Your task to perform on an android device: What's the weather? Image 0: 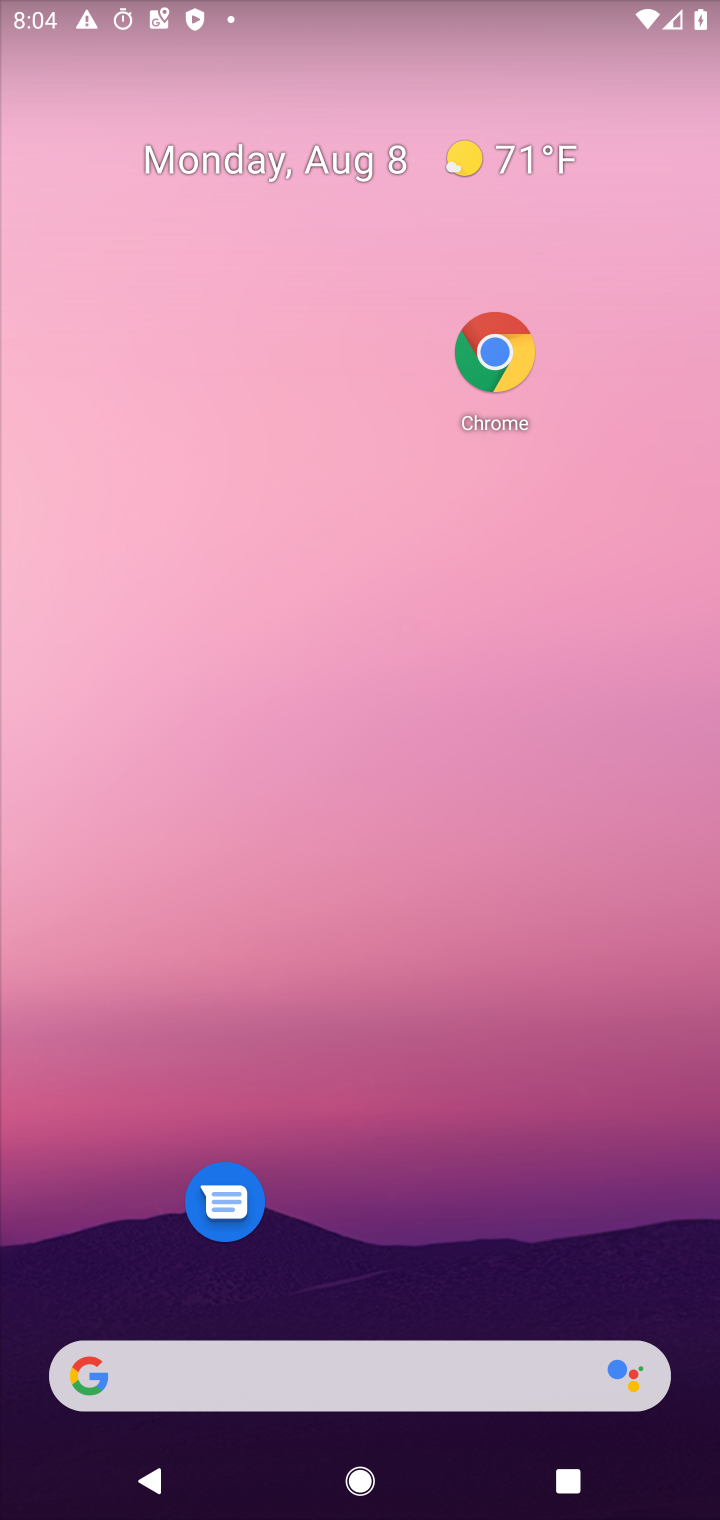
Step 0: drag from (288, 1110) to (277, 317)
Your task to perform on an android device: What's the weather? Image 1: 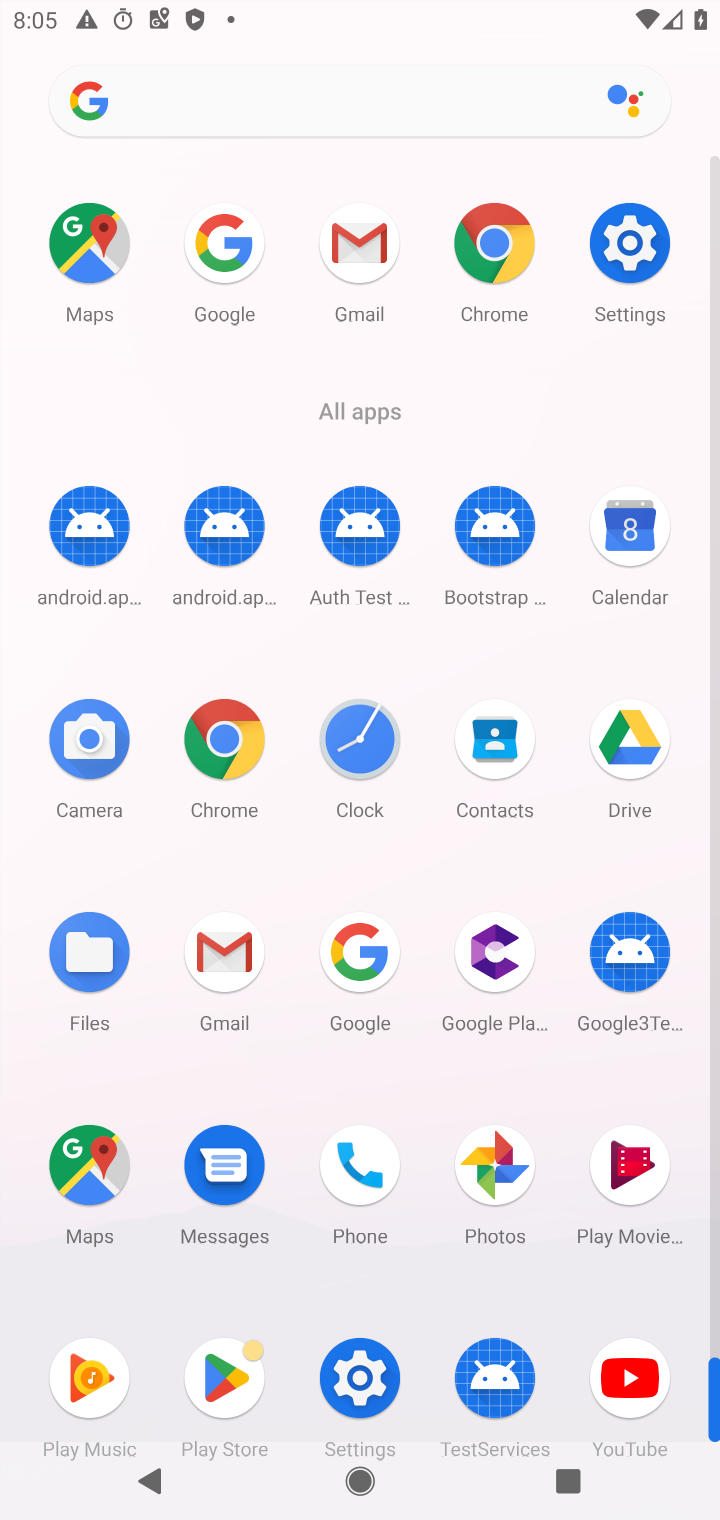
Step 1: click (102, 1193)
Your task to perform on an android device: What's the weather? Image 2: 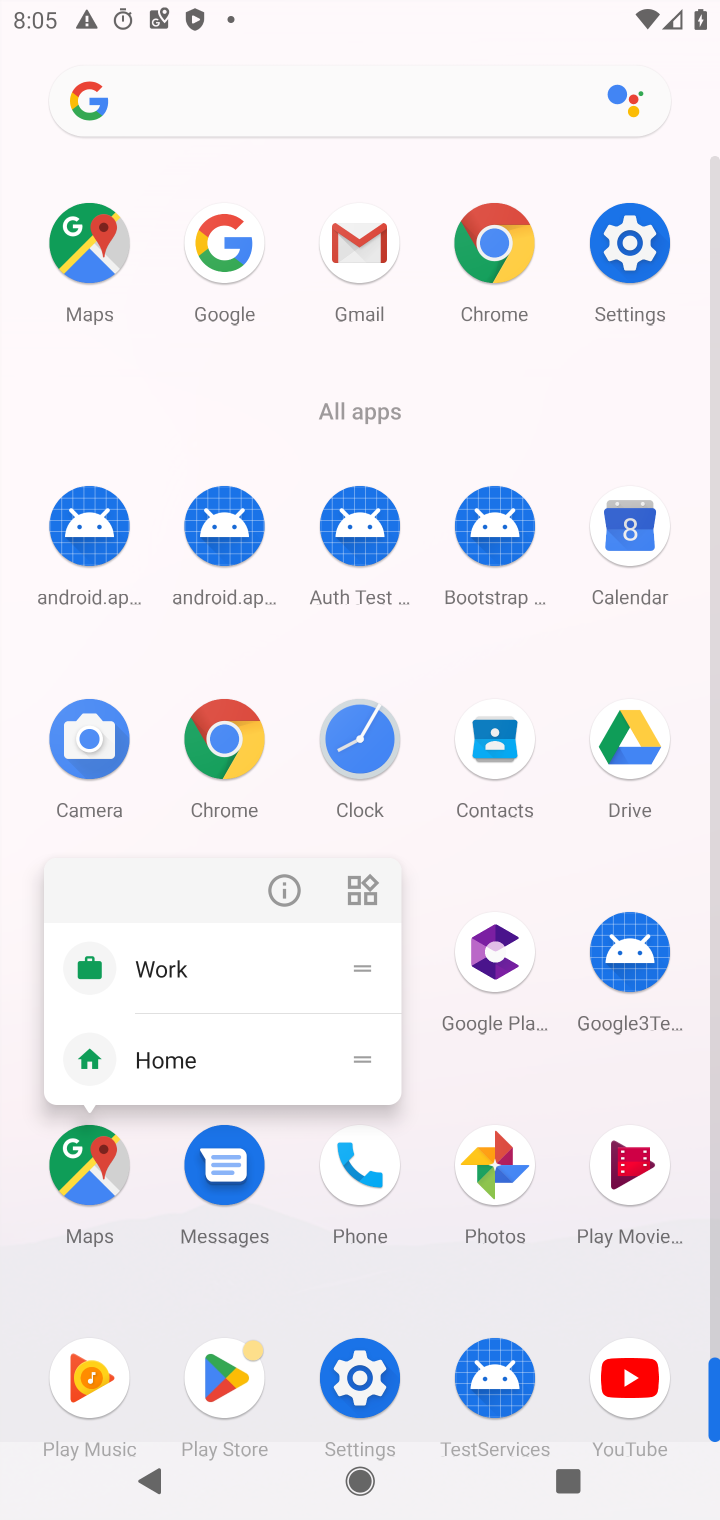
Step 2: drag from (496, 1136) to (419, 176)
Your task to perform on an android device: What's the weather? Image 3: 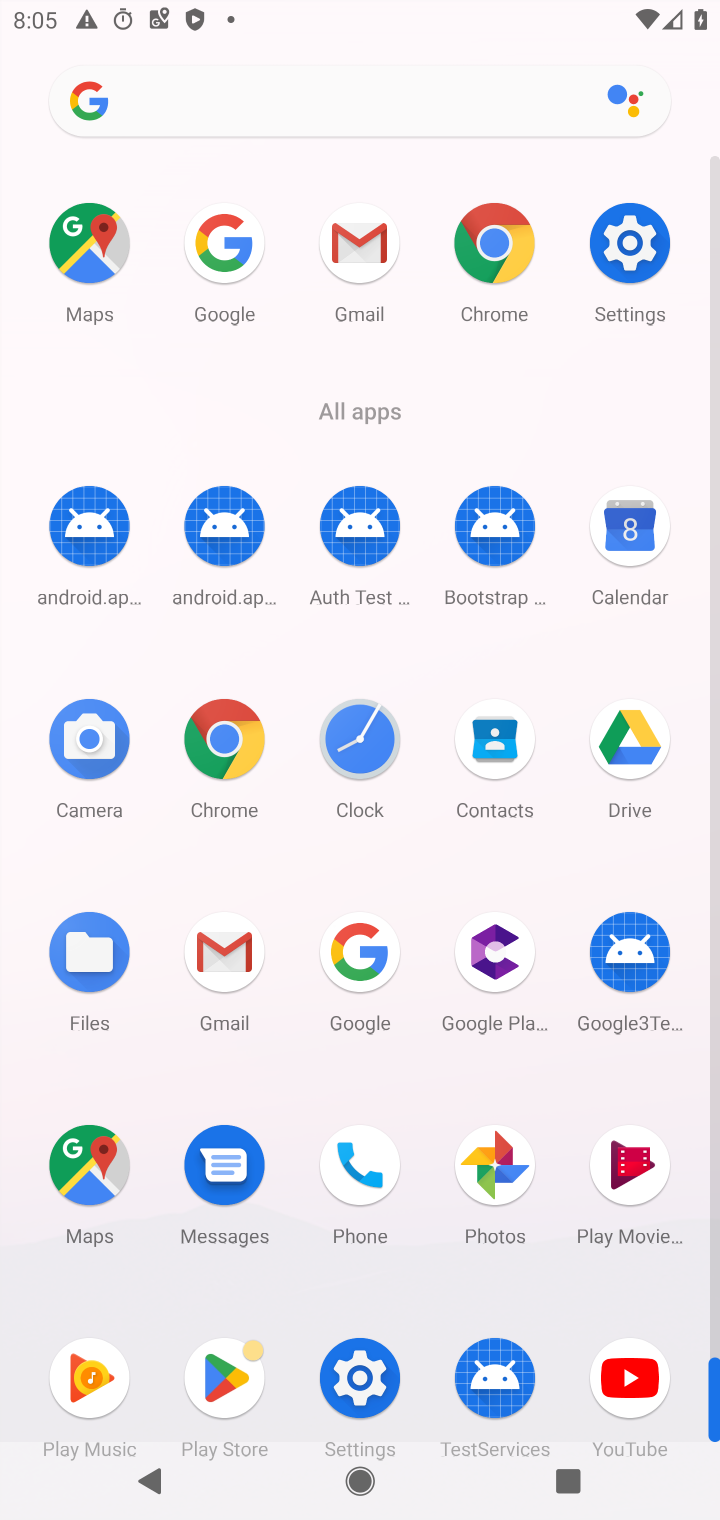
Step 3: click (357, 1003)
Your task to perform on an android device: What's the weather? Image 4: 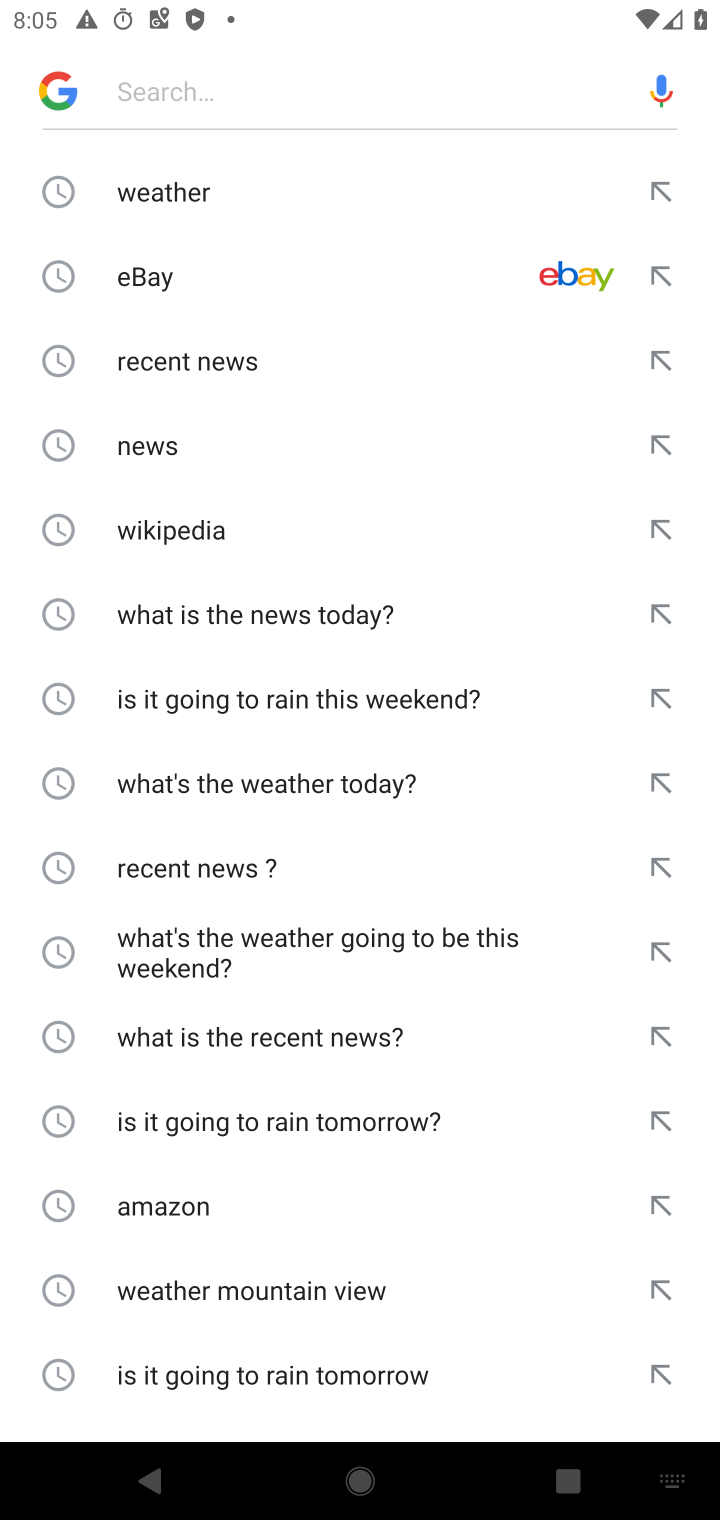
Step 4: click (140, 192)
Your task to perform on an android device: What's the weather? Image 5: 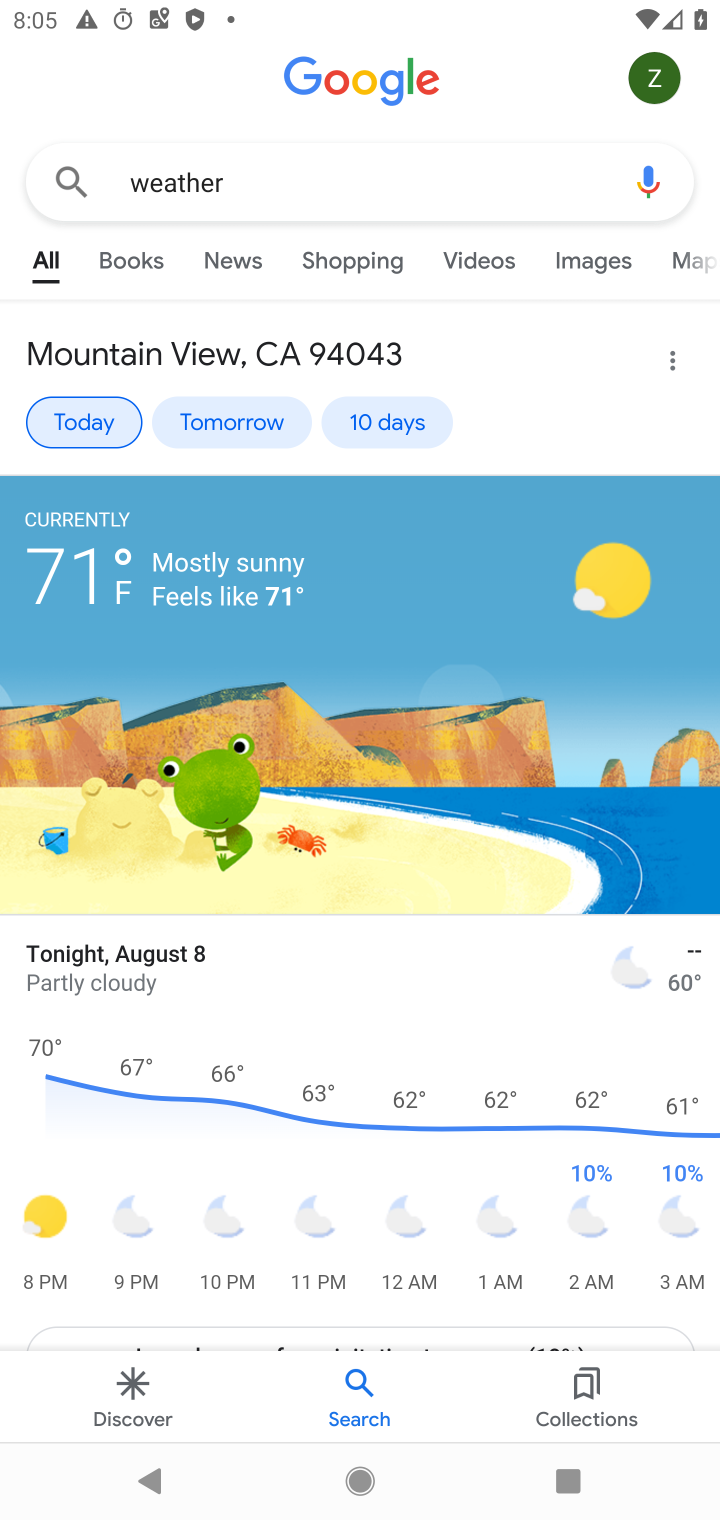
Step 5: task complete